Your task to perform on an android device: toggle location history Image 0: 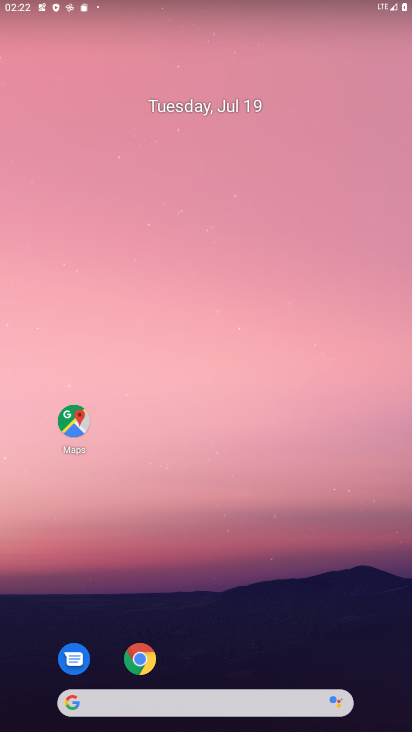
Step 0: press home button
Your task to perform on an android device: toggle location history Image 1: 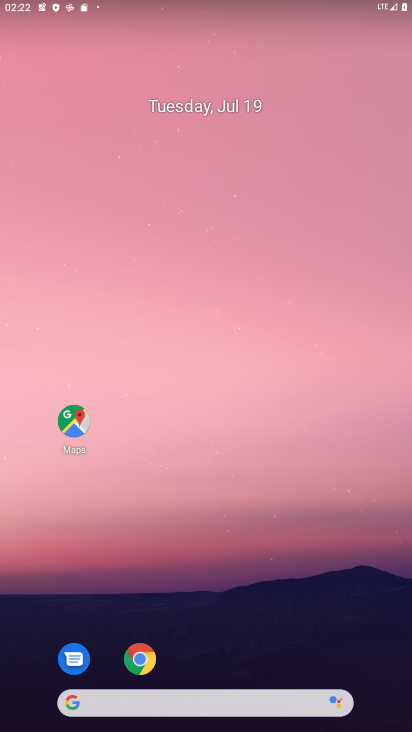
Step 1: drag from (281, 614) to (320, 2)
Your task to perform on an android device: toggle location history Image 2: 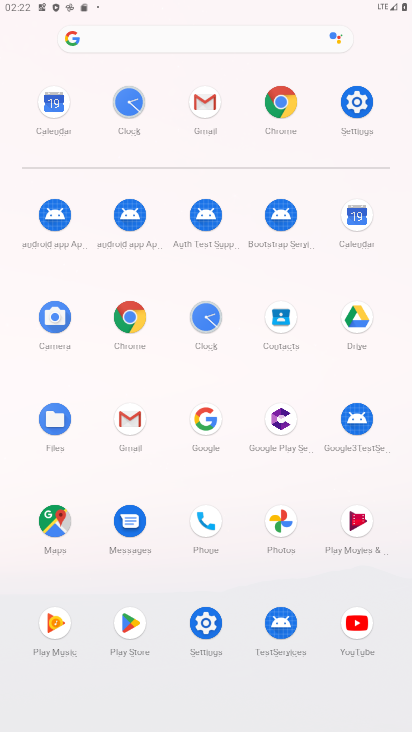
Step 2: click (75, 523)
Your task to perform on an android device: toggle location history Image 3: 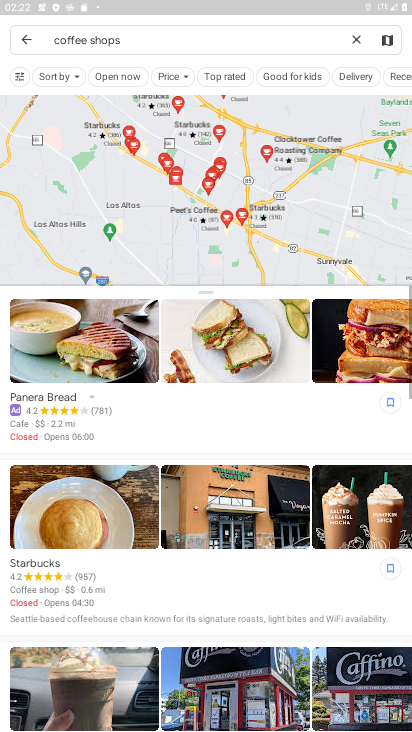
Step 3: click (24, 40)
Your task to perform on an android device: toggle location history Image 4: 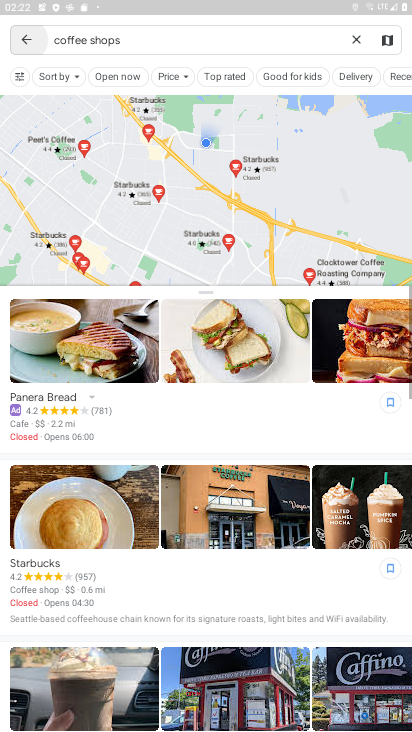
Step 4: click (24, 40)
Your task to perform on an android device: toggle location history Image 5: 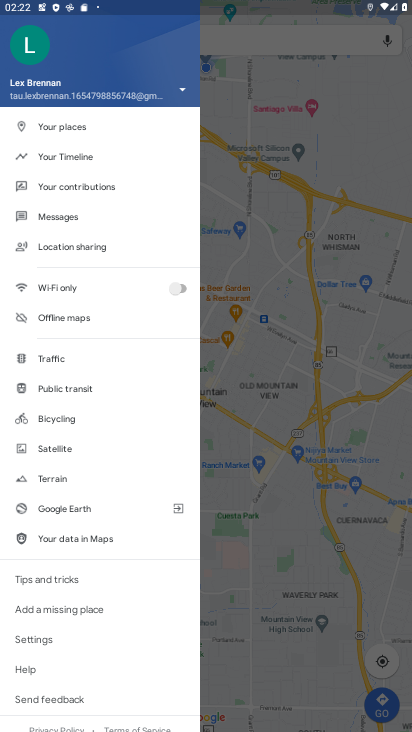
Step 5: click (119, 152)
Your task to perform on an android device: toggle location history Image 6: 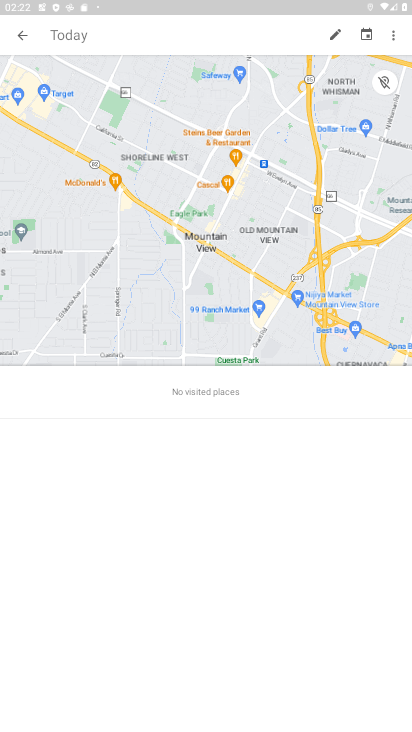
Step 6: click (393, 28)
Your task to perform on an android device: toggle location history Image 7: 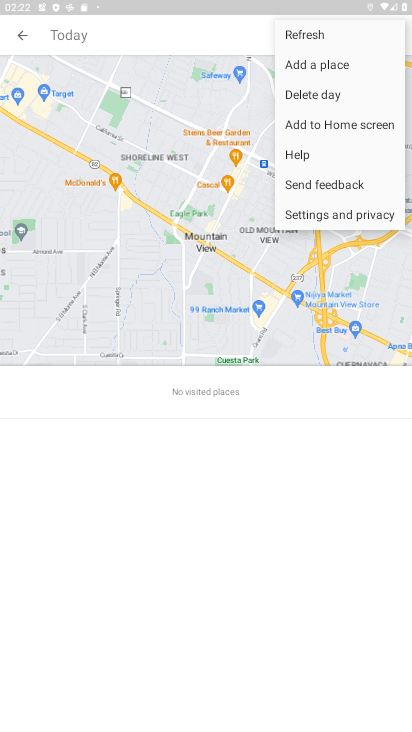
Step 7: click (319, 215)
Your task to perform on an android device: toggle location history Image 8: 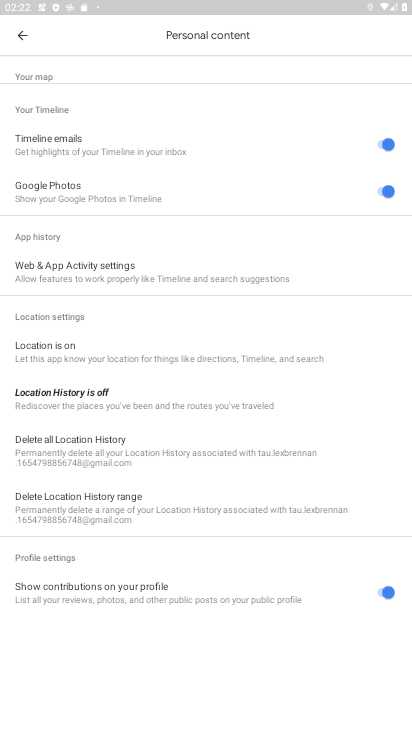
Step 8: click (93, 405)
Your task to perform on an android device: toggle location history Image 9: 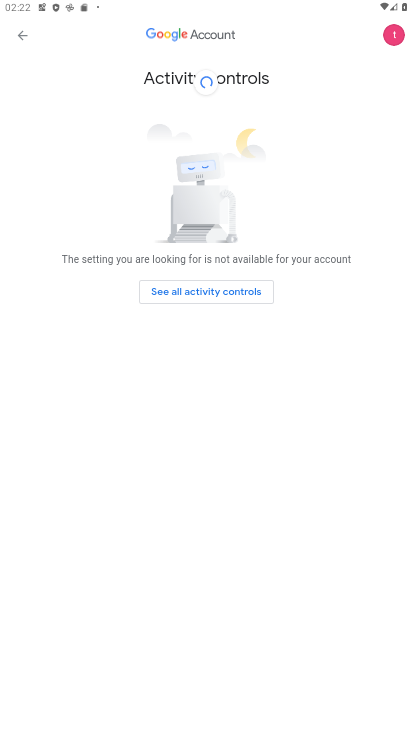
Step 9: click (207, 288)
Your task to perform on an android device: toggle location history Image 10: 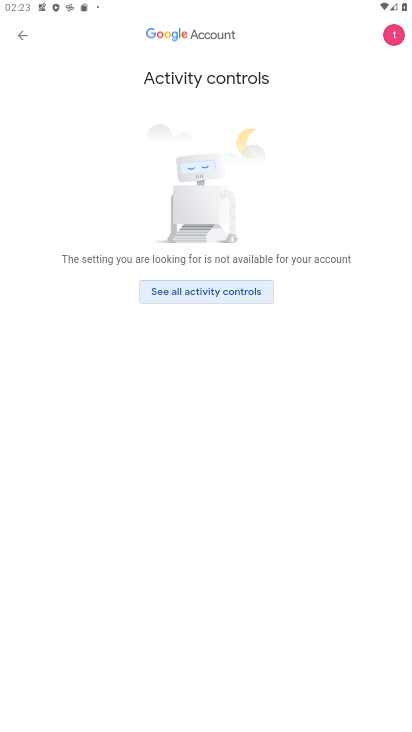
Step 10: click (207, 288)
Your task to perform on an android device: toggle location history Image 11: 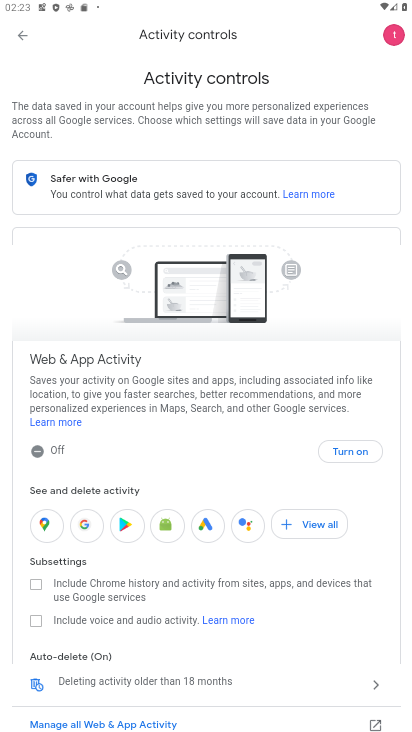
Step 11: click (358, 442)
Your task to perform on an android device: toggle location history Image 12: 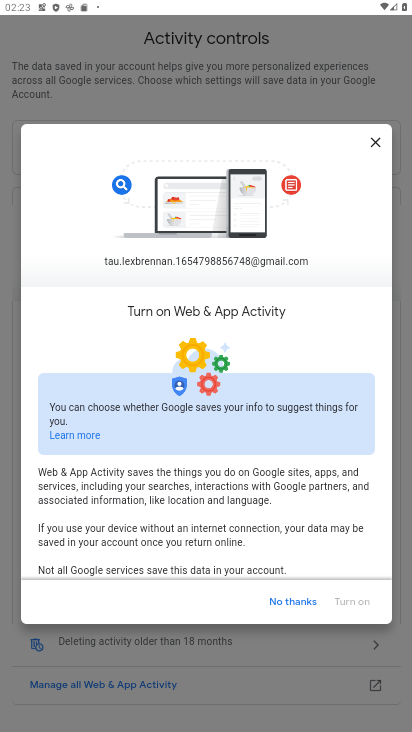
Step 12: drag from (275, 563) to (260, 320)
Your task to perform on an android device: toggle location history Image 13: 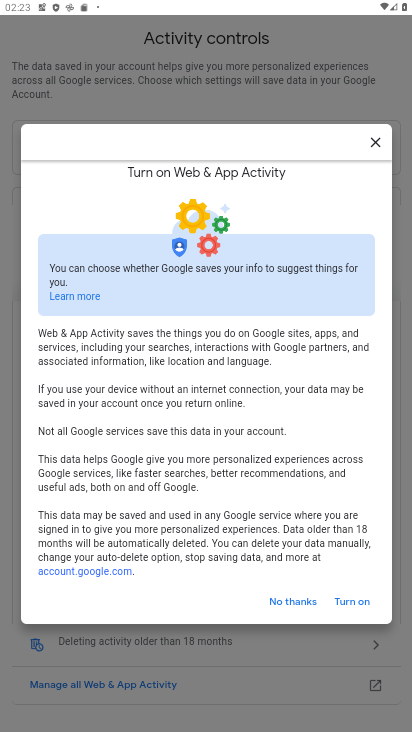
Step 13: click (340, 598)
Your task to perform on an android device: toggle location history Image 14: 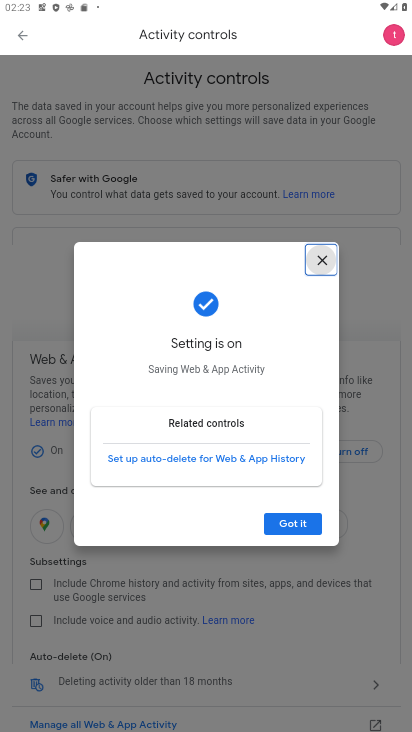
Step 14: click (293, 521)
Your task to perform on an android device: toggle location history Image 15: 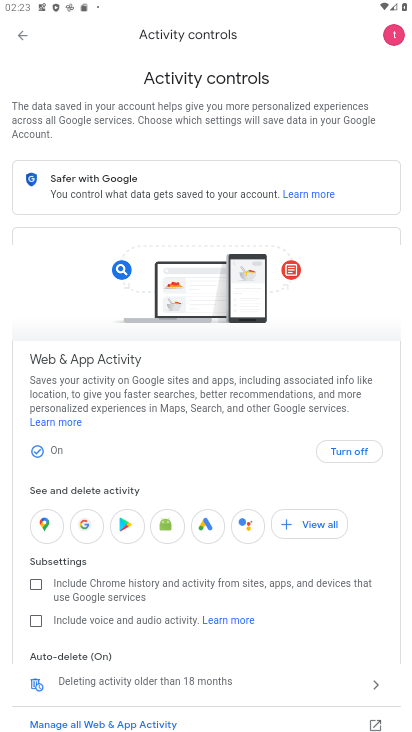
Step 15: task complete